Your task to perform on an android device: Open the web browser Image 0: 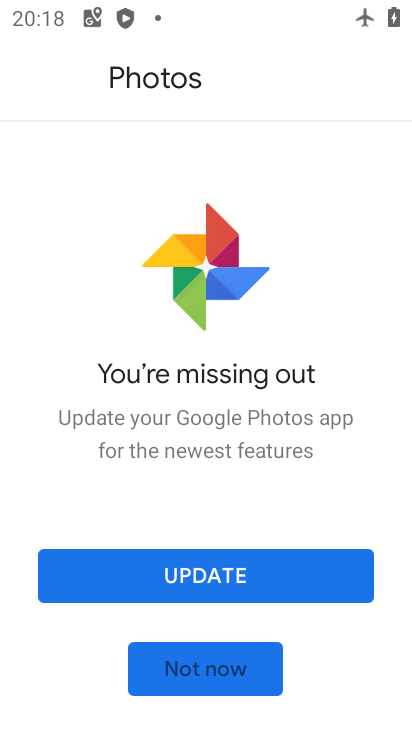
Step 0: press home button
Your task to perform on an android device: Open the web browser Image 1: 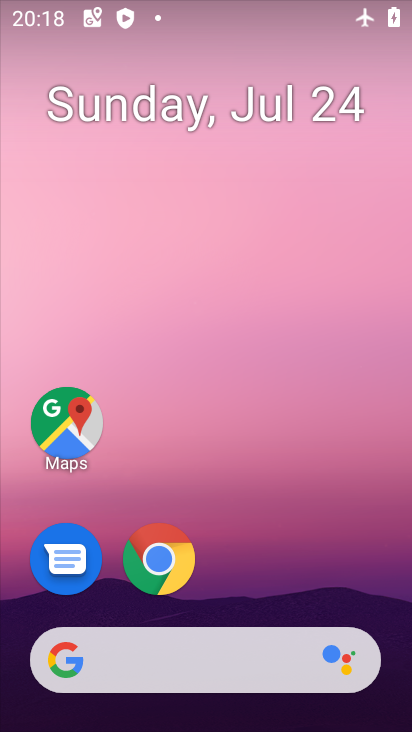
Step 1: drag from (339, 577) to (355, 94)
Your task to perform on an android device: Open the web browser Image 2: 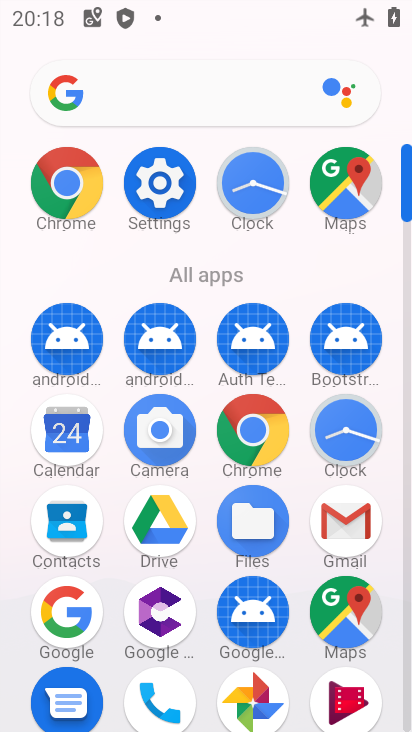
Step 2: click (251, 436)
Your task to perform on an android device: Open the web browser Image 3: 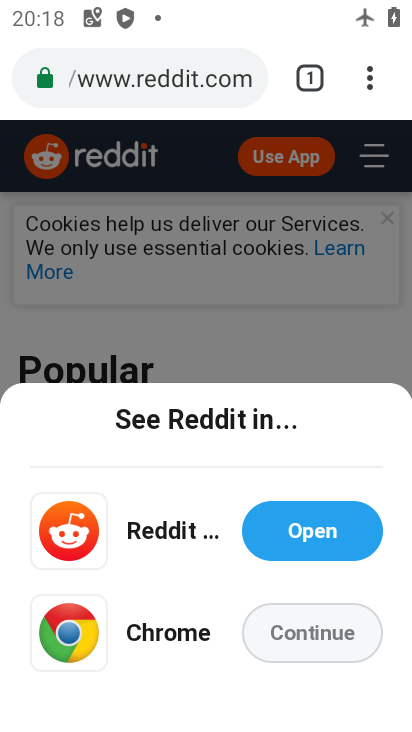
Step 3: task complete